Your task to perform on an android device: toggle airplane mode Image 0: 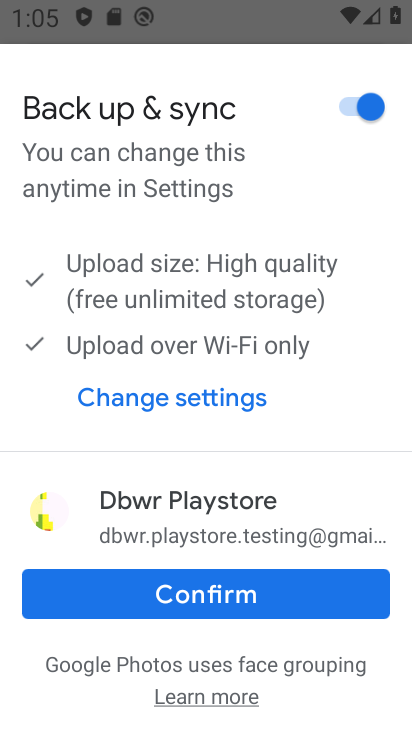
Step 0: press home button
Your task to perform on an android device: toggle airplane mode Image 1: 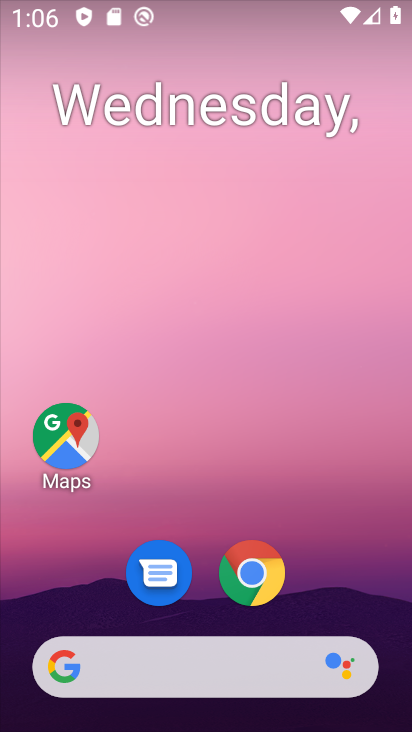
Step 1: drag from (195, 560) to (304, 22)
Your task to perform on an android device: toggle airplane mode Image 2: 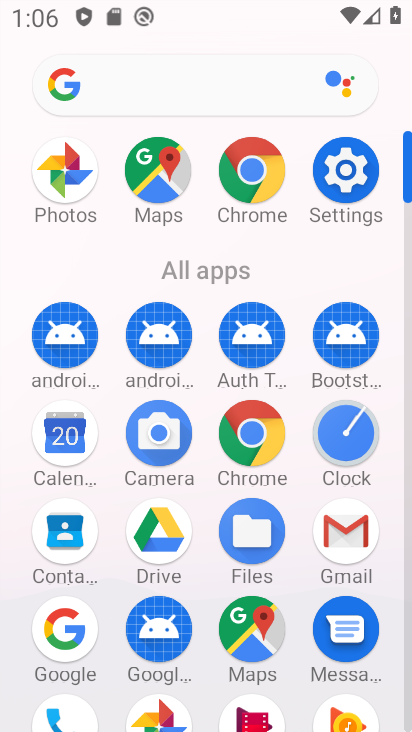
Step 2: click (343, 180)
Your task to perform on an android device: toggle airplane mode Image 3: 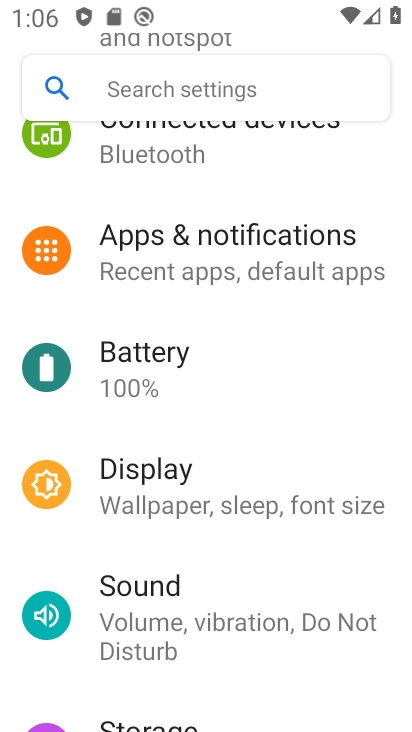
Step 3: drag from (233, 211) to (229, 642)
Your task to perform on an android device: toggle airplane mode Image 4: 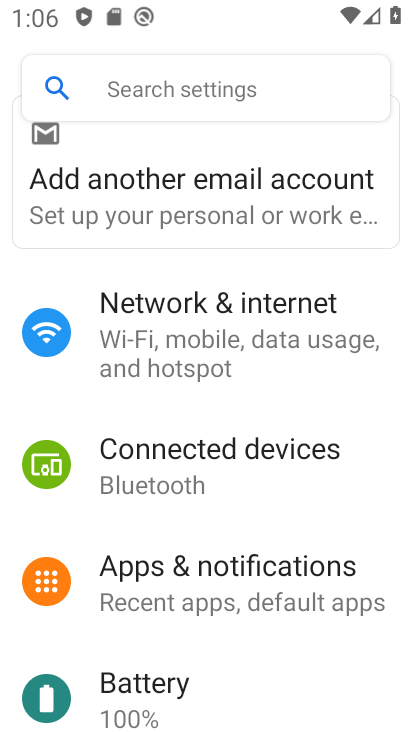
Step 4: click (222, 347)
Your task to perform on an android device: toggle airplane mode Image 5: 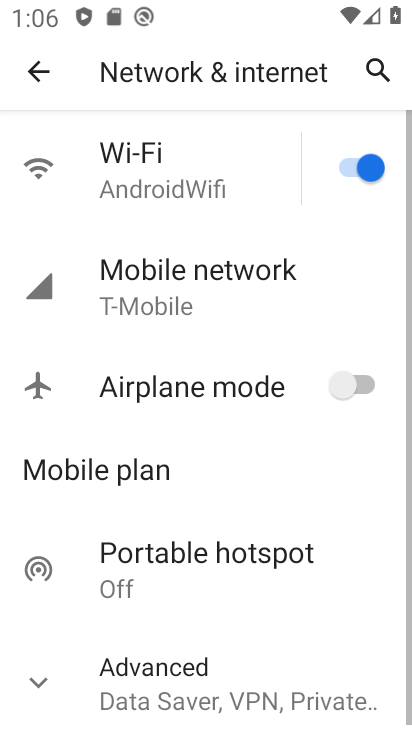
Step 5: click (359, 384)
Your task to perform on an android device: toggle airplane mode Image 6: 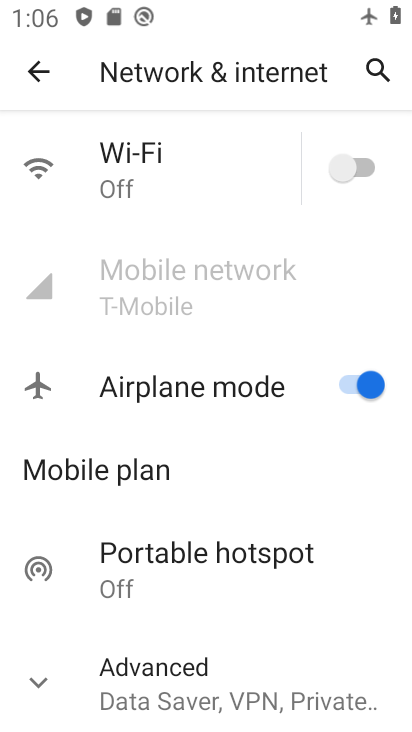
Step 6: task complete